Your task to perform on an android device: change notifications settings Image 0: 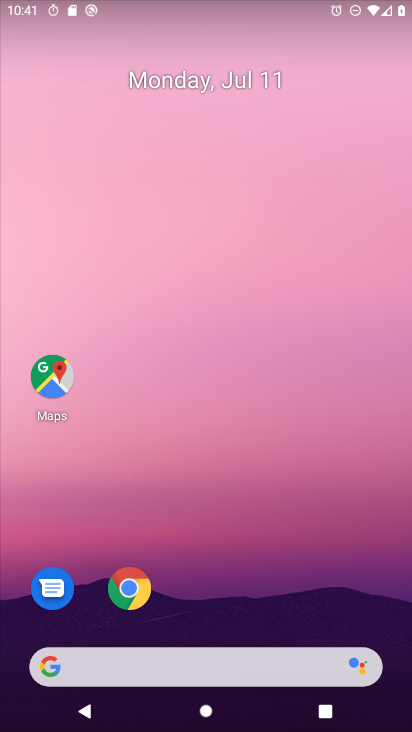
Step 0: drag from (234, 627) to (285, 47)
Your task to perform on an android device: change notifications settings Image 1: 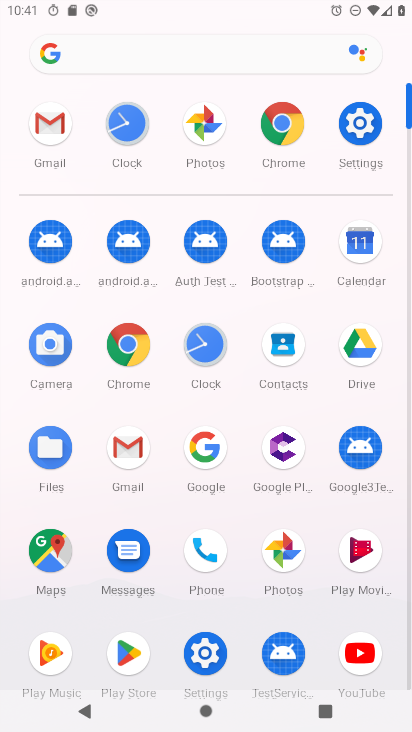
Step 1: click (354, 125)
Your task to perform on an android device: change notifications settings Image 2: 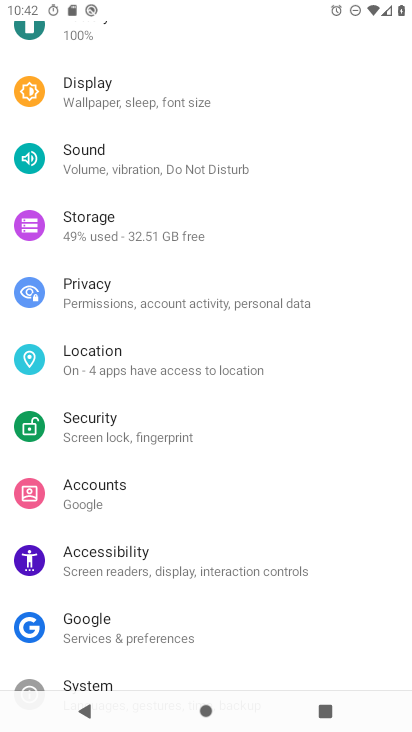
Step 2: drag from (188, 157) to (203, 720)
Your task to perform on an android device: change notifications settings Image 3: 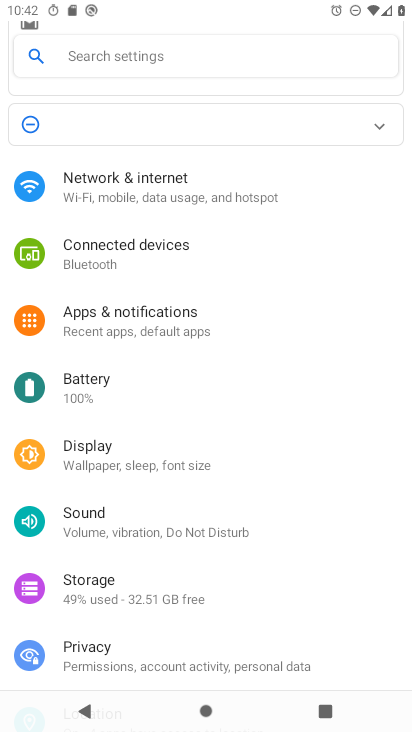
Step 3: click (138, 326)
Your task to perform on an android device: change notifications settings Image 4: 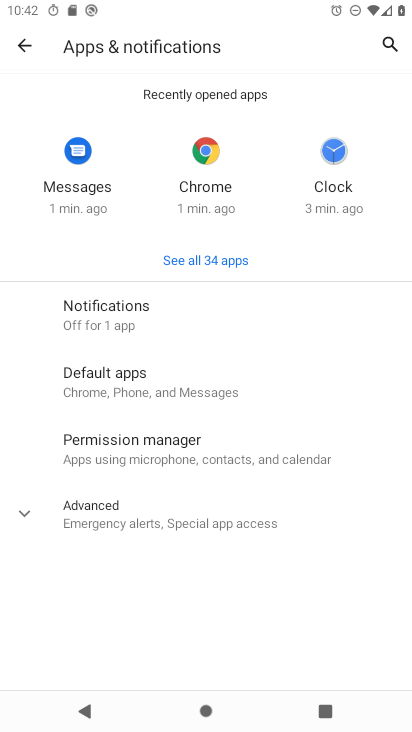
Step 4: click (151, 314)
Your task to perform on an android device: change notifications settings Image 5: 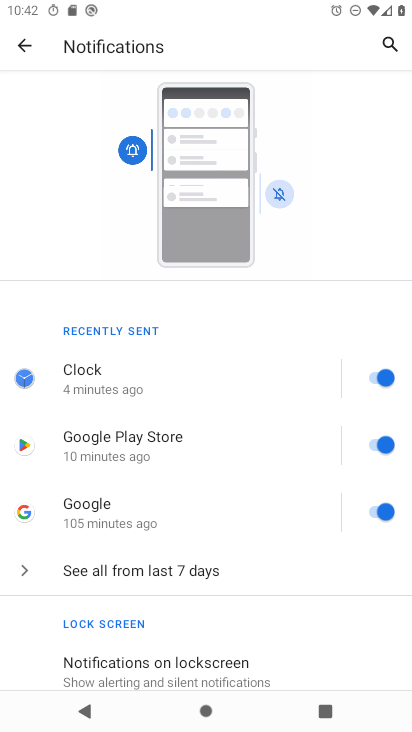
Step 5: drag from (237, 594) to (262, 244)
Your task to perform on an android device: change notifications settings Image 6: 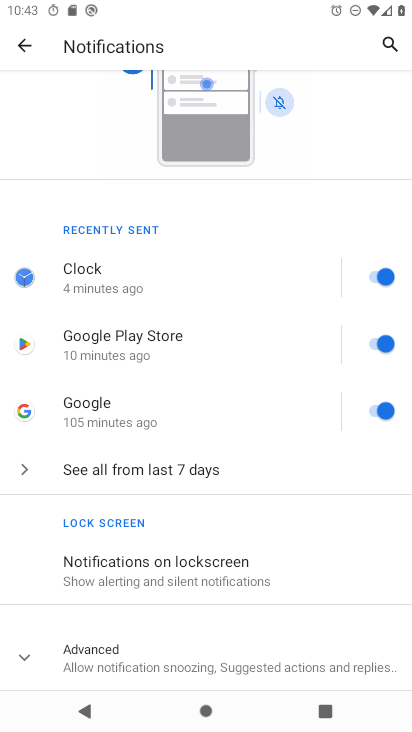
Step 6: click (177, 669)
Your task to perform on an android device: change notifications settings Image 7: 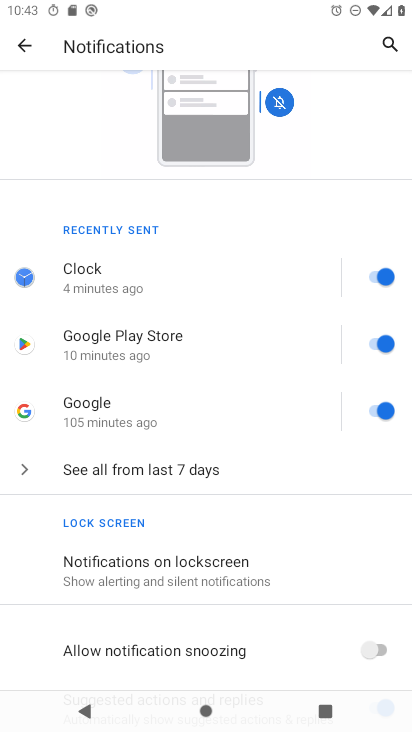
Step 7: click (364, 647)
Your task to perform on an android device: change notifications settings Image 8: 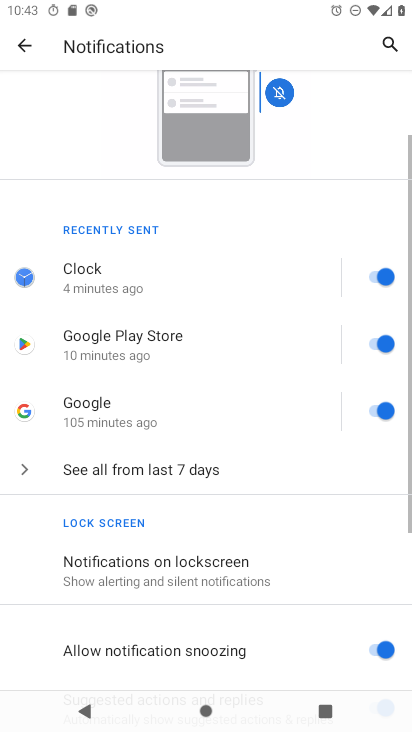
Step 8: task complete